Your task to perform on an android device: change the clock display to show seconds Image 0: 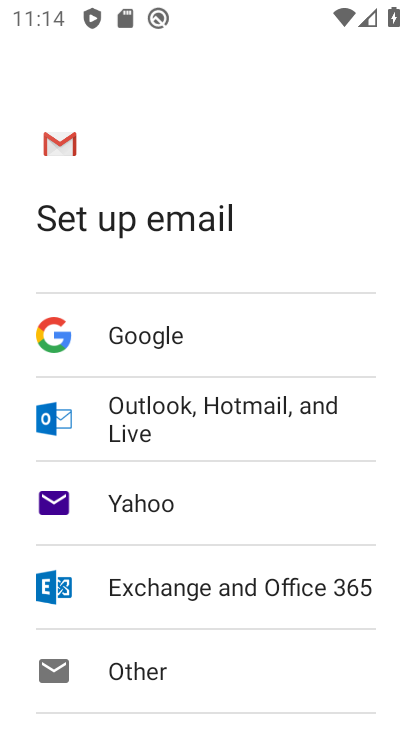
Step 0: press home button
Your task to perform on an android device: change the clock display to show seconds Image 1: 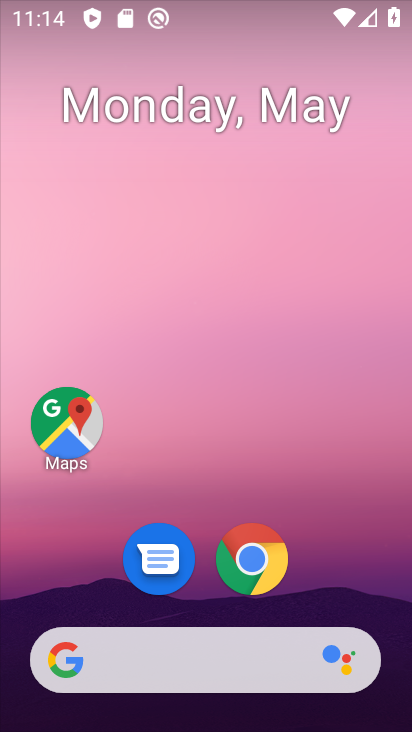
Step 1: drag from (43, 602) to (257, 117)
Your task to perform on an android device: change the clock display to show seconds Image 2: 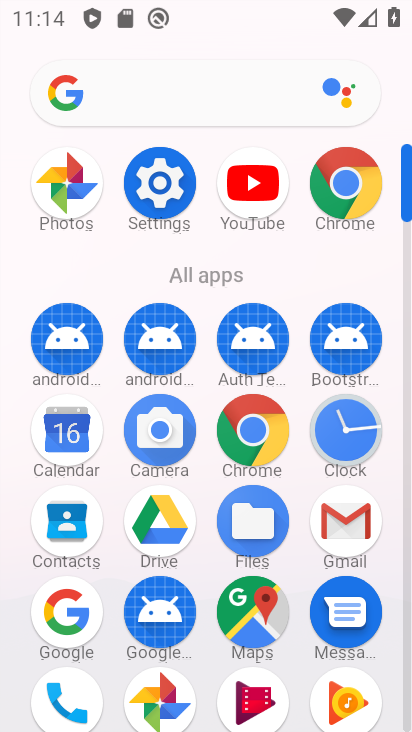
Step 2: click (363, 449)
Your task to perform on an android device: change the clock display to show seconds Image 3: 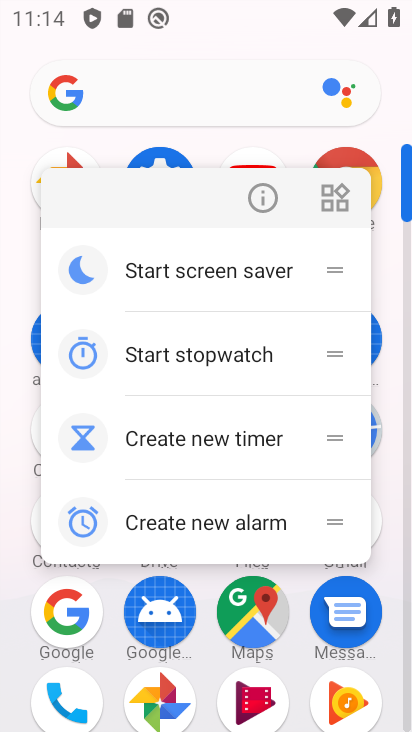
Step 3: click (374, 433)
Your task to perform on an android device: change the clock display to show seconds Image 4: 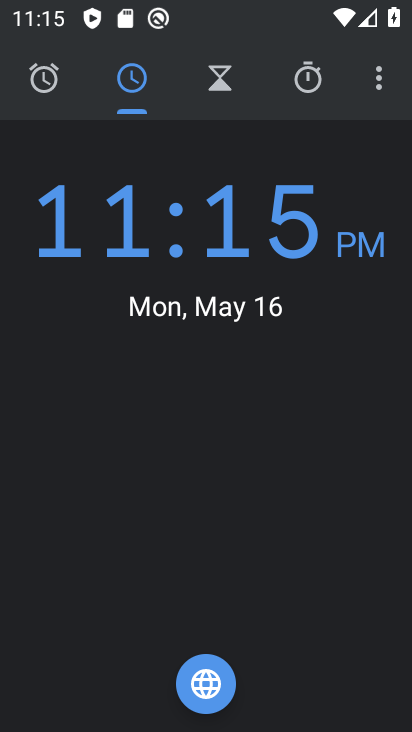
Step 4: click (393, 84)
Your task to perform on an android device: change the clock display to show seconds Image 5: 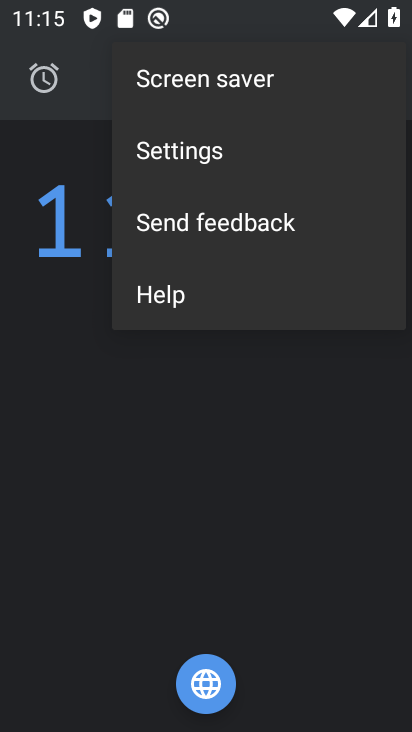
Step 5: click (327, 163)
Your task to perform on an android device: change the clock display to show seconds Image 6: 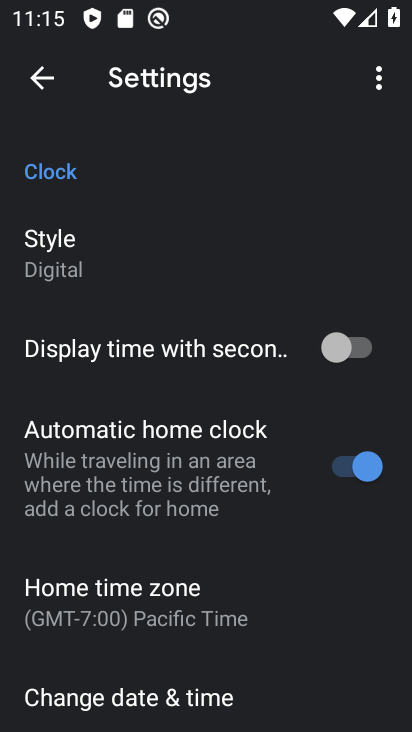
Step 6: click (378, 357)
Your task to perform on an android device: change the clock display to show seconds Image 7: 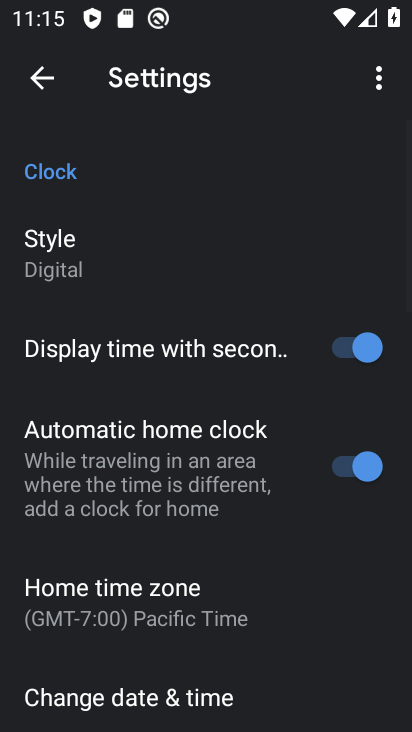
Step 7: task complete